Your task to perform on an android device: Show me recent news Image 0: 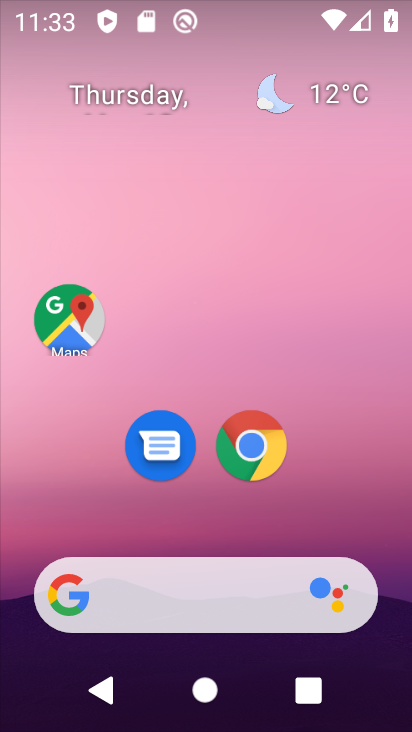
Step 0: drag from (28, 203) to (187, 1)
Your task to perform on an android device: Show me recent news Image 1: 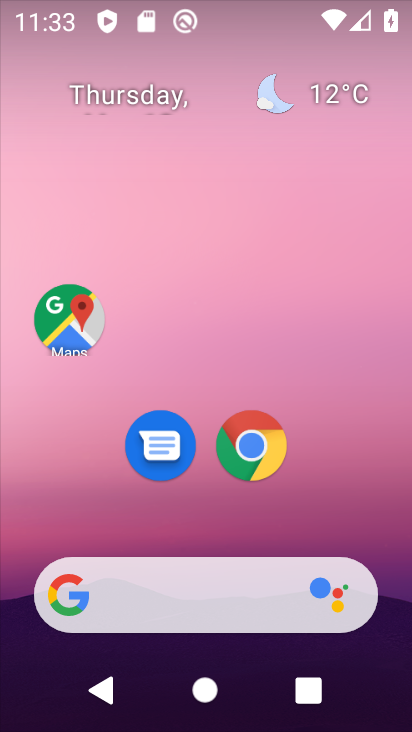
Step 1: task complete